Your task to perform on an android device: Open Google Maps and go to "Timeline" Image 0: 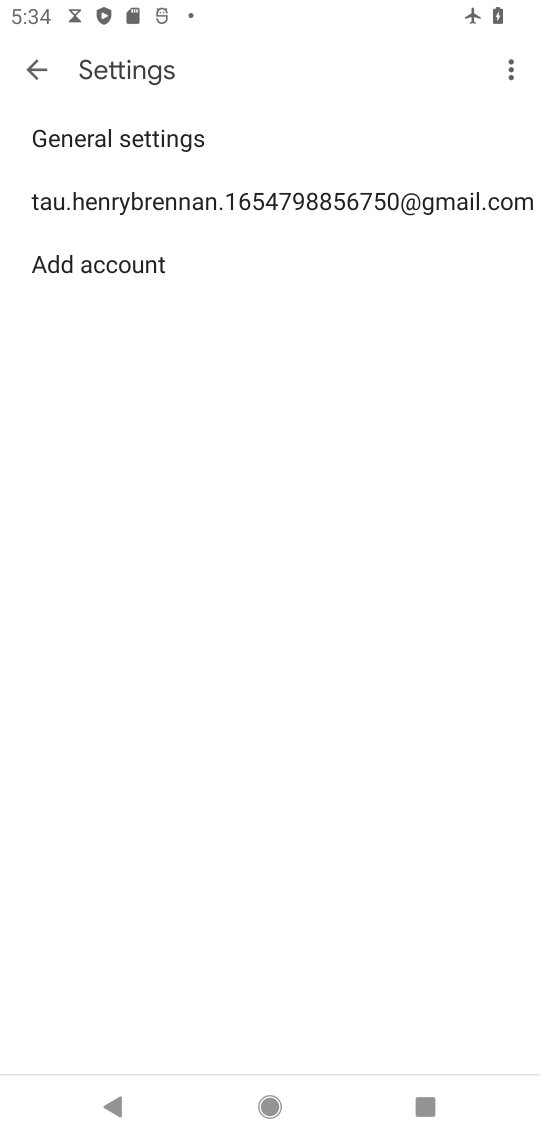
Step 0: press home button
Your task to perform on an android device: Open Google Maps and go to "Timeline" Image 1: 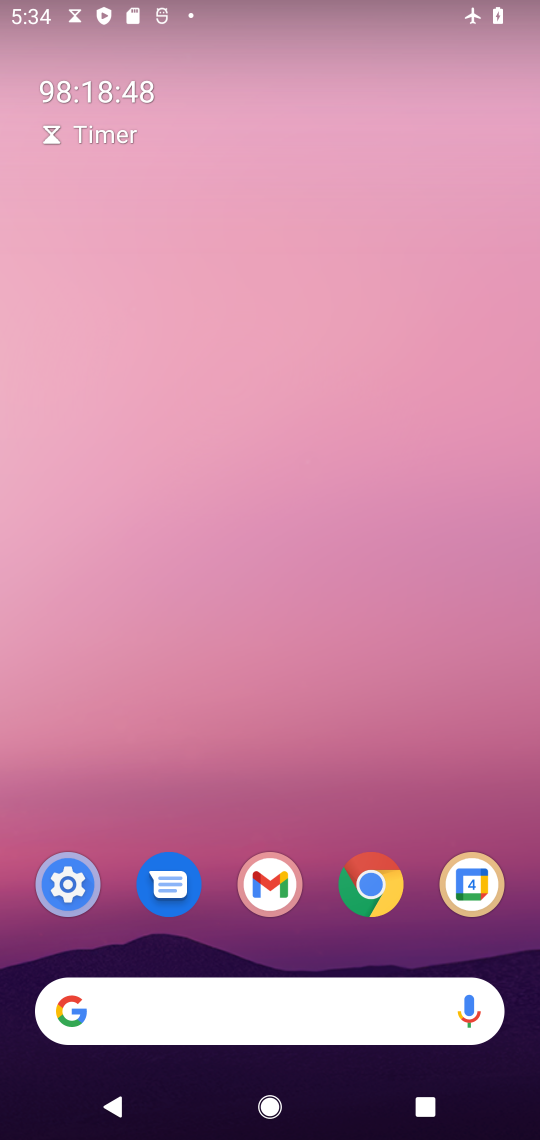
Step 1: drag from (374, 922) to (353, 274)
Your task to perform on an android device: Open Google Maps and go to "Timeline" Image 2: 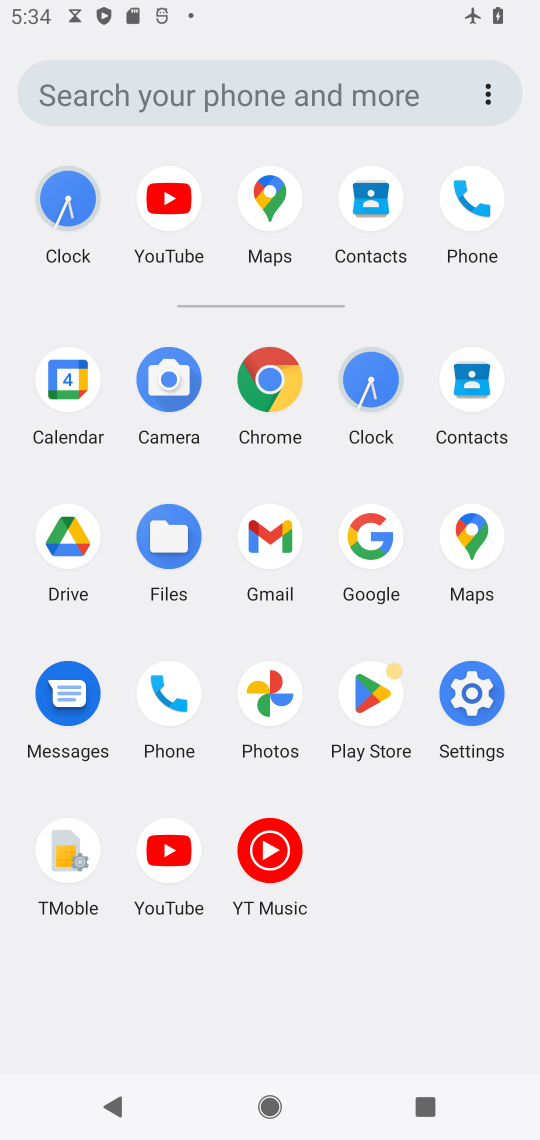
Step 2: click (488, 522)
Your task to perform on an android device: Open Google Maps and go to "Timeline" Image 3: 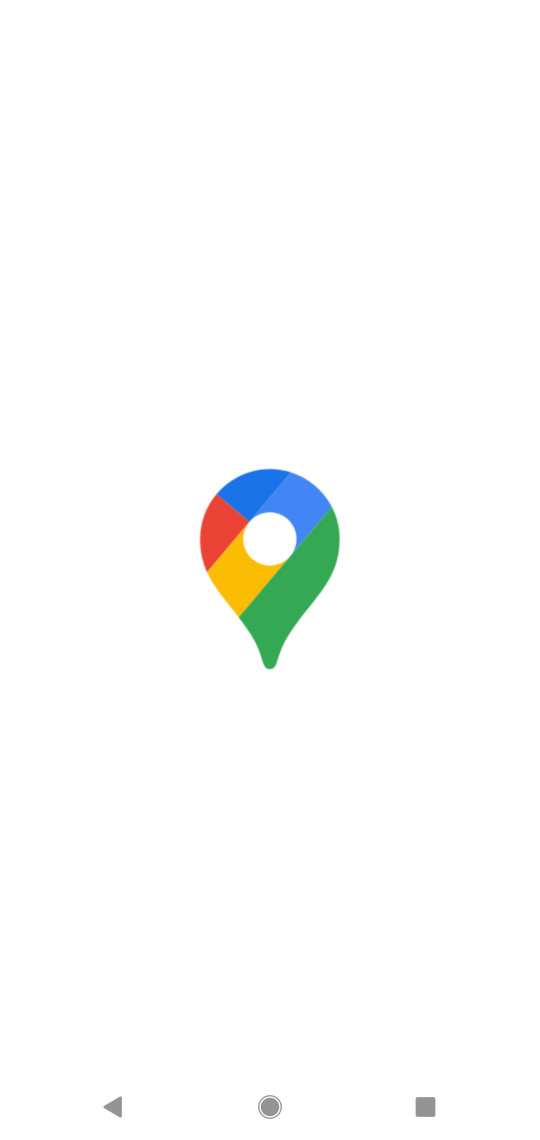
Step 3: task complete